Your task to perform on an android device: change the clock display to digital Image 0: 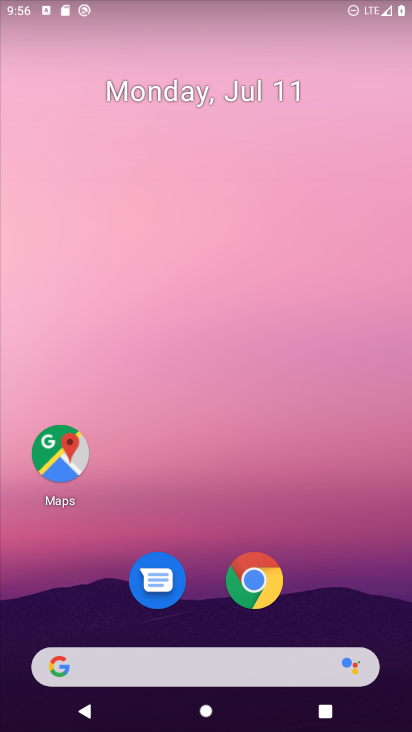
Step 0: drag from (220, 503) to (256, 56)
Your task to perform on an android device: change the clock display to digital Image 1: 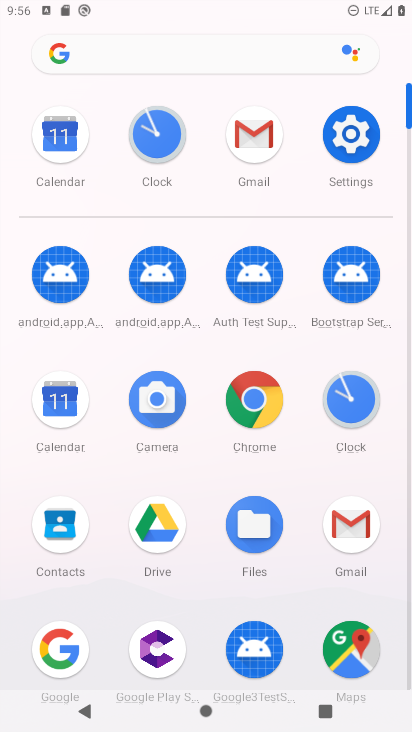
Step 1: click (166, 138)
Your task to perform on an android device: change the clock display to digital Image 2: 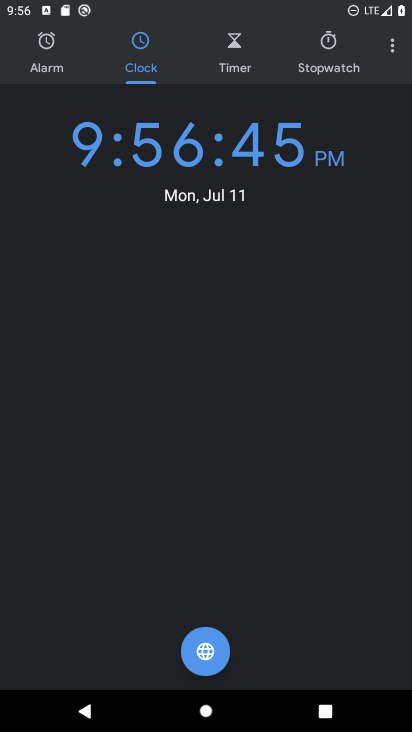
Step 2: task complete